Your task to perform on an android device: check battery use Image 0: 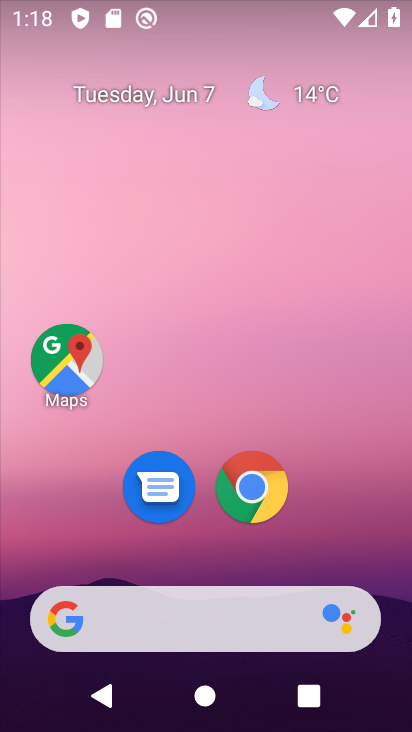
Step 0: click (189, 147)
Your task to perform on an android device: check battery use Image 1: 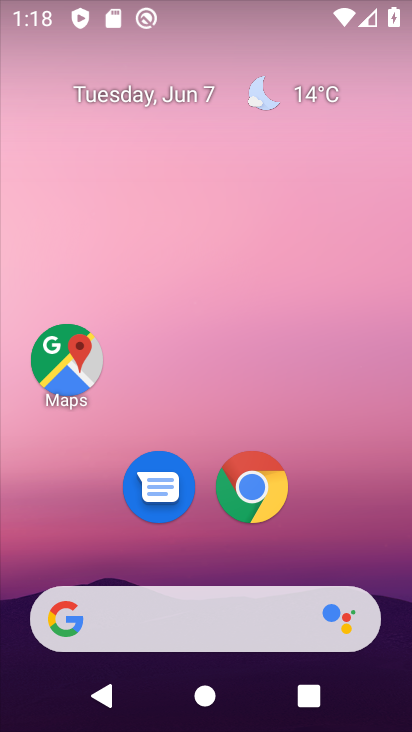
Step 1: drag from (228, 570) to (227, 12)
Your task to perform on an android device: check battery use Image 2: 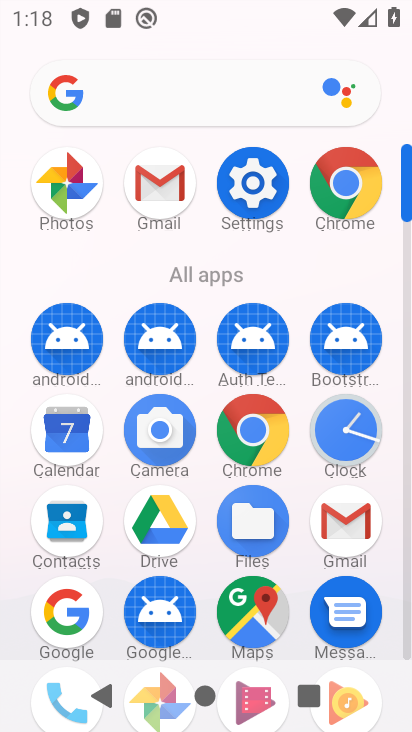
Step 2: click (262, 203)
Your task to perform on an android device: check battery use Image 3: 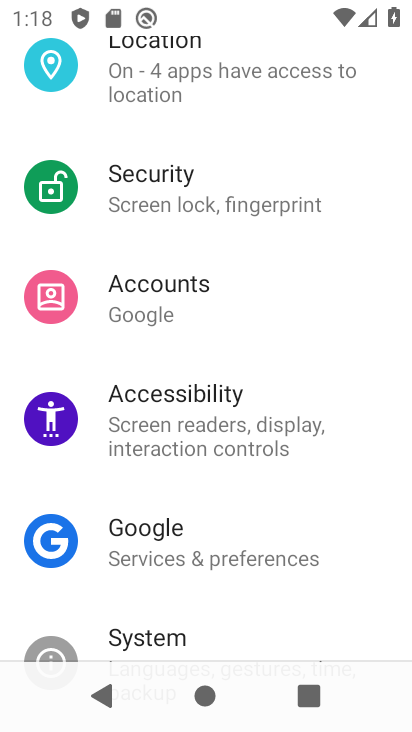
Step 3: drag from (148, 166) to (121, 518)
Your task to perform on an android device: check battery use Image 4: 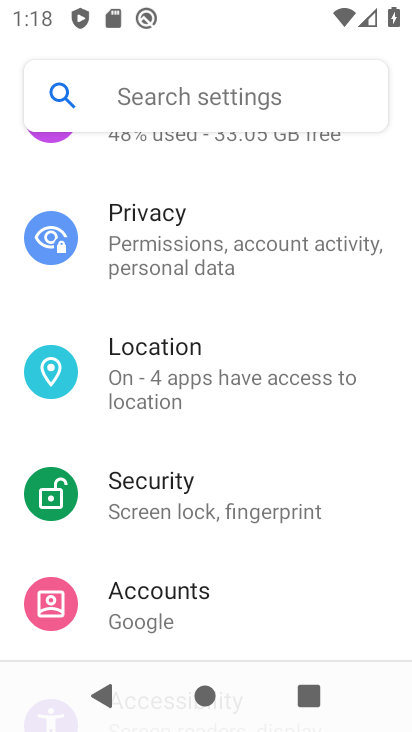
Step 4: drag from (177, 157) to (174, 726)
Your task to perform on an android device: check battery use Image 5: 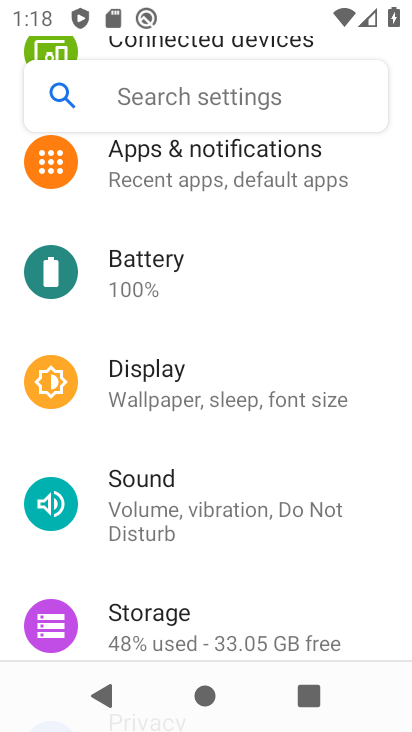
Step 5: click (178, 279)
Your task to perform on an android device: check battery use Image 6: 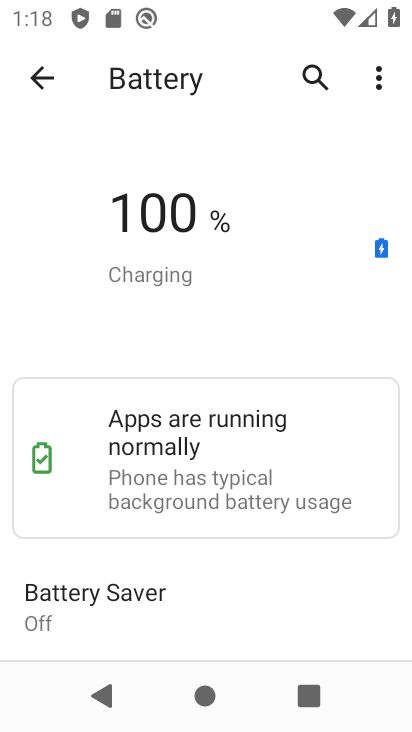
Step 6: click (410, 80)
Your task to perform on an android device: check battery use Image 7: 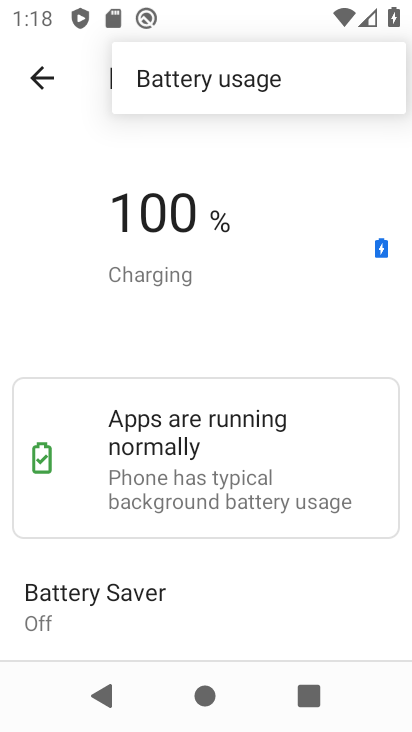
Step 7: click (155, 102)
Your task to perform on an android device: check battery use Image 8: 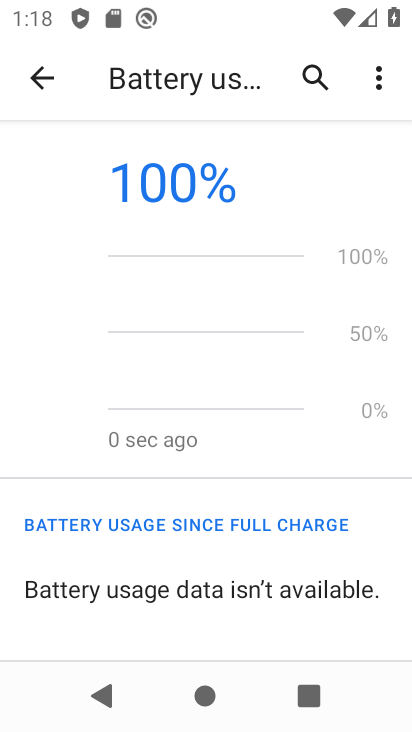
Step 8: task complete